Your task to perform on an android device: turn off location Image 0: 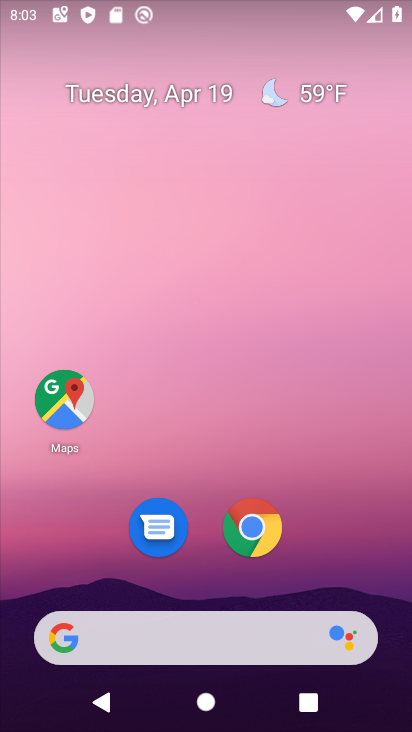
Step 0: drag from (188, 585) to (201, 245)
Your task to perform on an android device: turn off location Image 1: 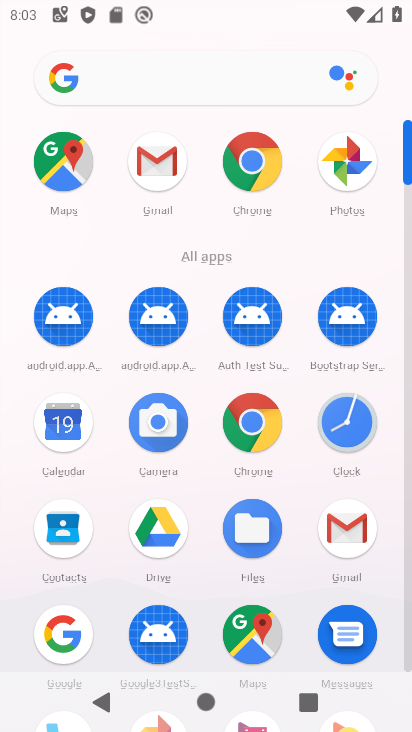
Step 1: drag from (192, 501) to (202, 186)
Your task to perform on an android device: turn off location Image 2: 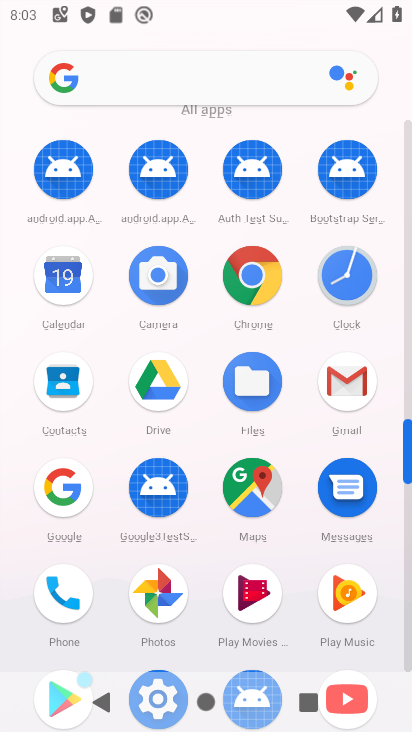
Step 2: drag from (217, 570) to (231, 375)
Your task to perform on an android device: turn off location Image 3: 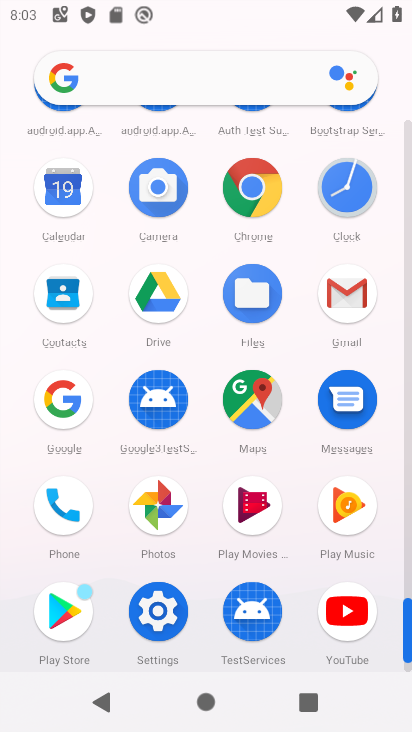
Step 3: click (159, 588)
Your task to perform on an android device: turn off location Image 4: 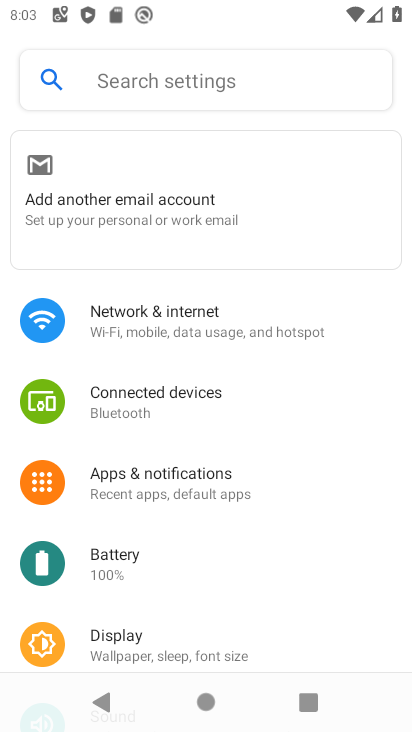
Step 4: drag from (191, 562) to (218, 228)
Your task to perform on an android device: turn off location Image 5: 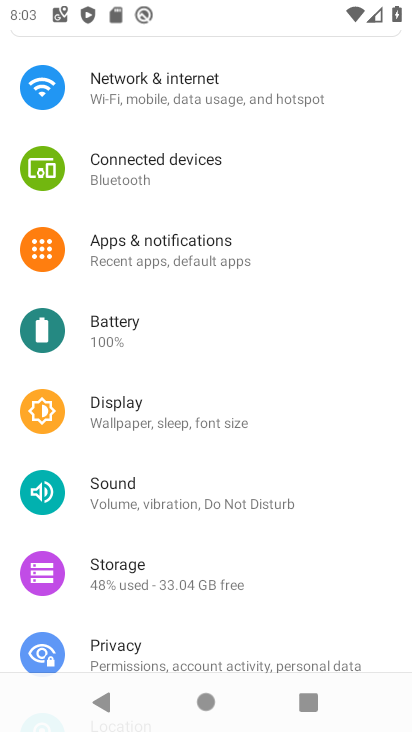
Step 5: drag from (200, 593) to (220, 309)
Your task to perform on an android device: turn off location Image 6: 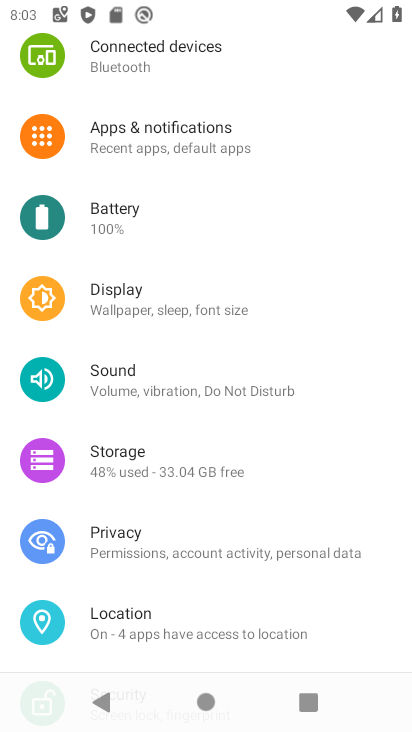
Step 6: click (149, 605)
Your task to perform on an android device: turn off location Image 7: 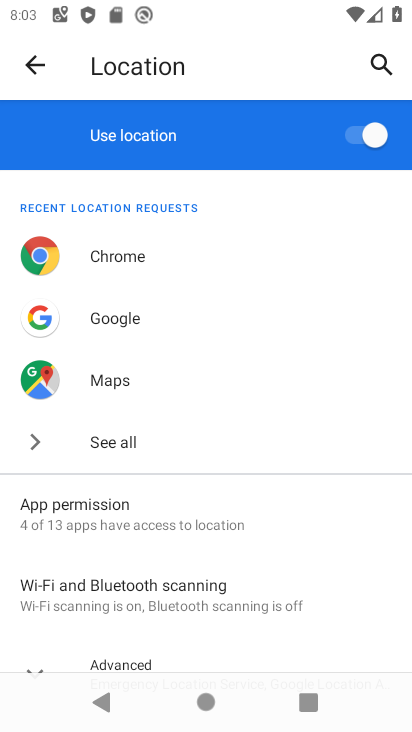
Step 7: click (356, 130)
Your task to perform on an android device: turn off location Image 8: 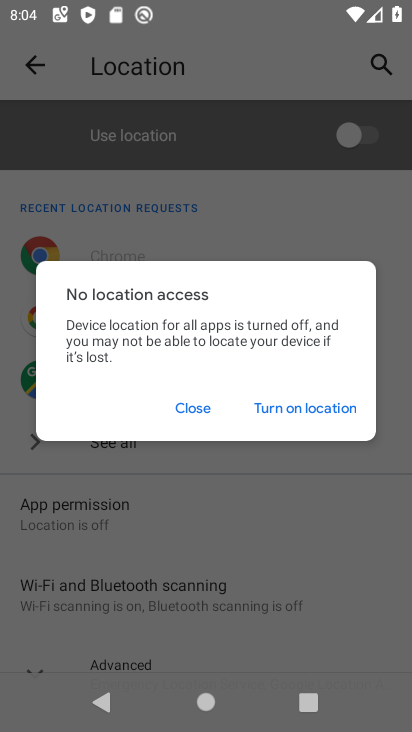
Step 8: task complete